Your task to perform on an android device: move an email to a new category in the gmail app Image 0: 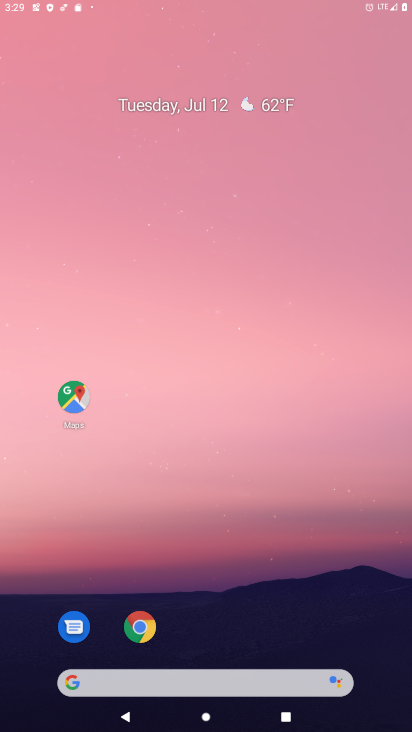
Step 0: press home button
Your task to perform on an android device: move an email to a new category in the gmail app Image 1: 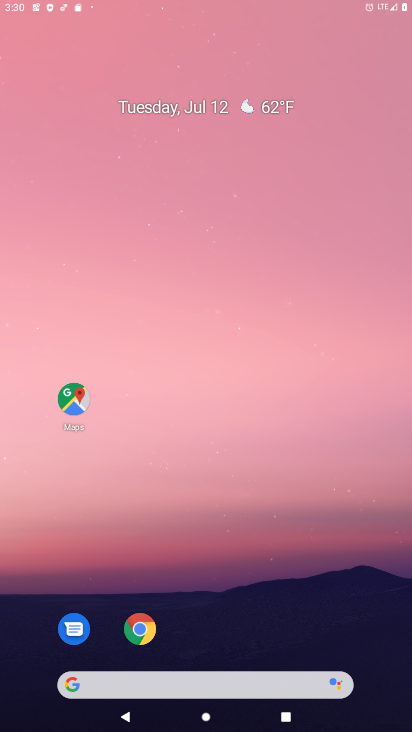
Step 1: drag from (206, 660) to (186, 184)
Your task to perform on an android device: move an email to a new category in the gmail app Image 2: 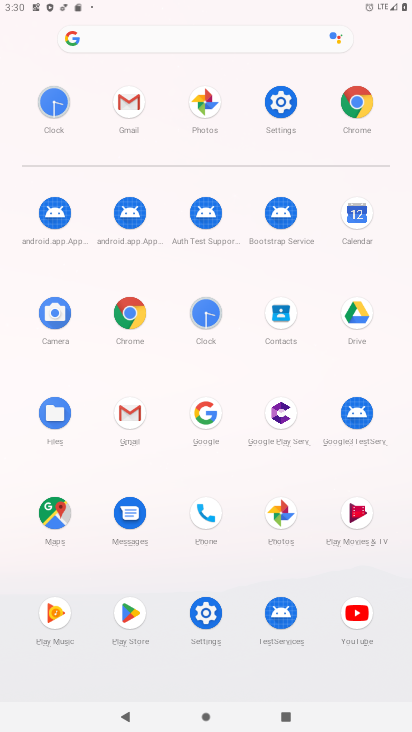
Step 2: click (126, 411)
Your task to perform on an android device: move an email to a new category in the gmail app Image 3: 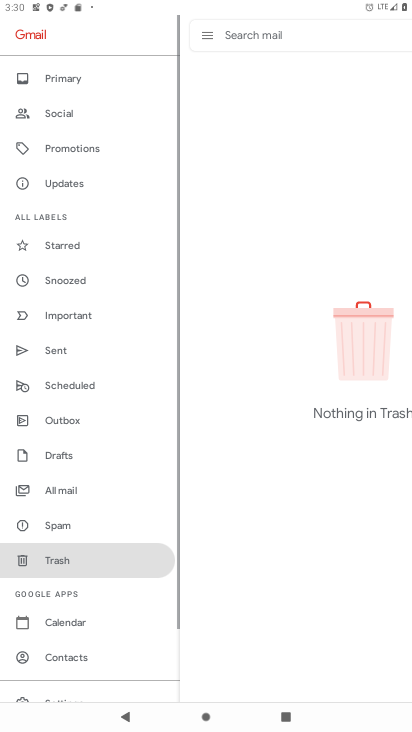
Step 3: click (57, 74)
Your task to perform on an android device: move an email to a new category in the gmail app Image 4: 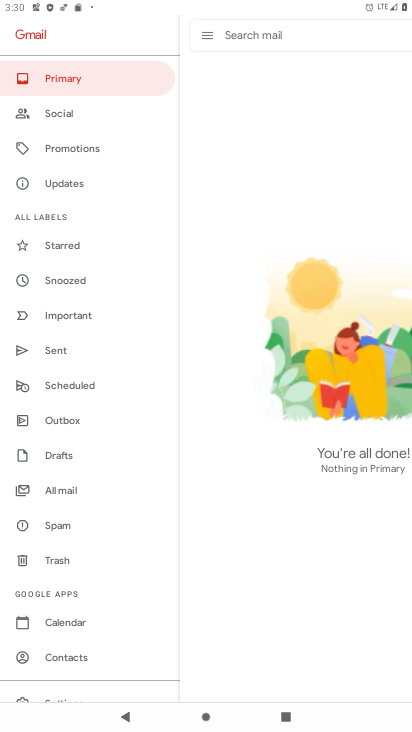
Step 4: task complete